Your task to perform on an android device: open app "PUBG MOBILE" Image 0: 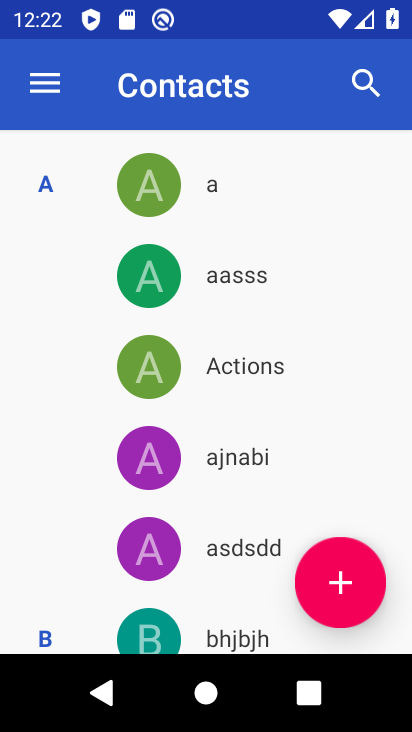
Step 0: press home button
Your task to perform on an android device: open app "PUBG MOBILE" Image 1: 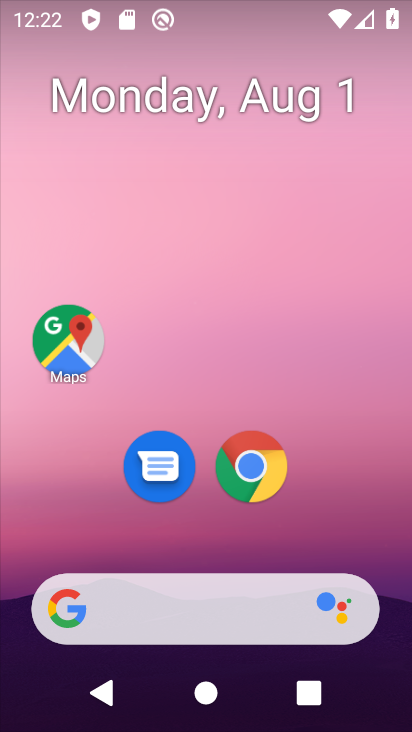
Step 1: drag from (213, 458) to (211, 0)
Your task to perform on an android device: open app "PUBG MOBILE" Image 2: 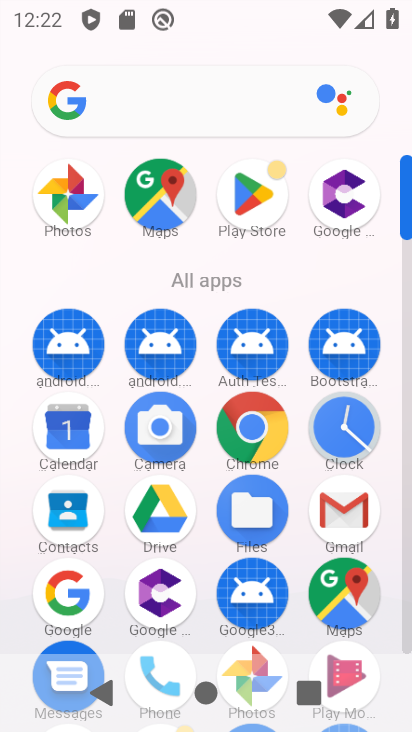
Step 2: drag from (261, 436) to (195, 15)
Your task to perform on an android device: open app "PUBG MOBILE" Image 3: 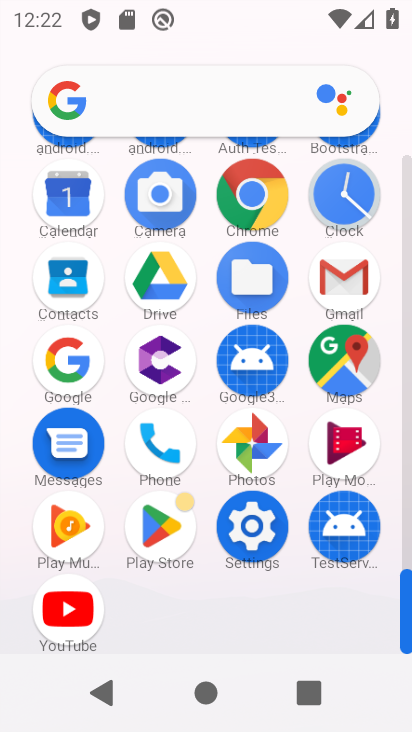
Step 3: click (160, 525)
Your task to perform on an android device: open app "PUBG MOBILE" Image 4: 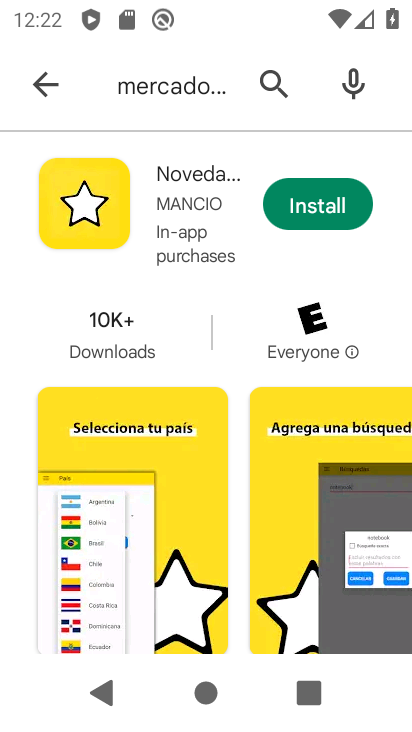
Step 4: click (158, 73)
Your task to perform on an android device: open app "PUBG MOBILE" Image 5: 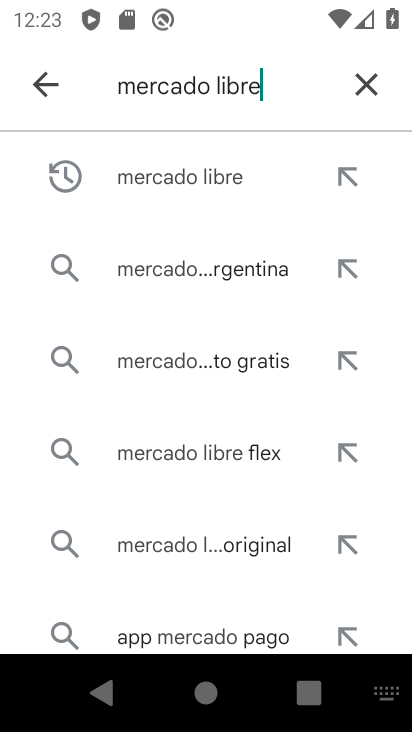
Step 5: click (365, 86)
Your task to perform on an android device: open app "PUBG MOBILE" Image 6: 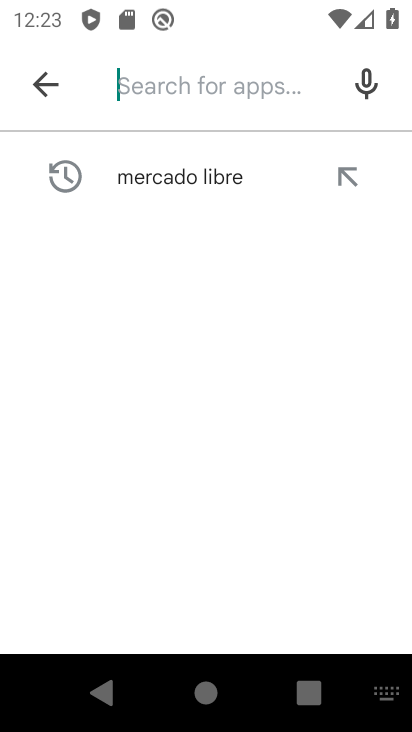
Step 6: type "PUBG "
Your task to perform on an android device: open app "PUBG MOBILE" Image 7: 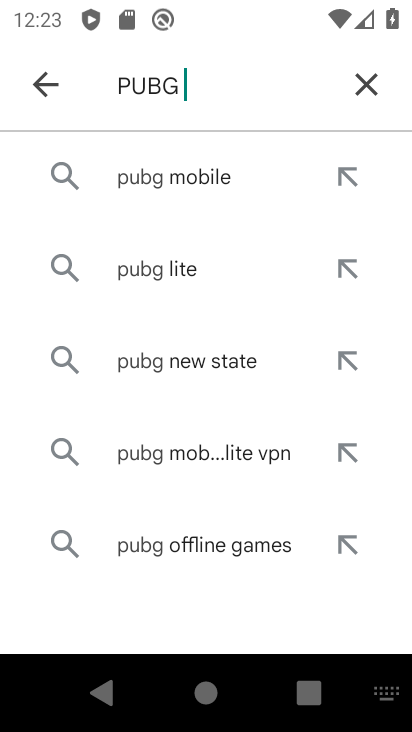
Step 7: click (181, 184)
Your task to perform on an android device: open app "PUBG MOBILE" Image 8: 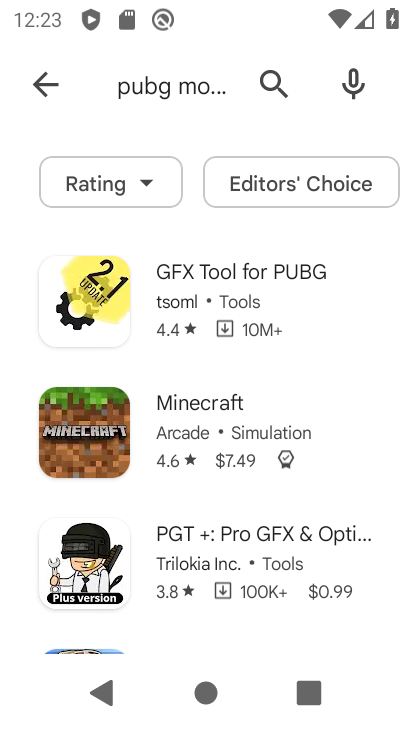
Step 8: task complete